Your task to perform on an android device: Open the phone app and click the voicemail tab. Image 0: 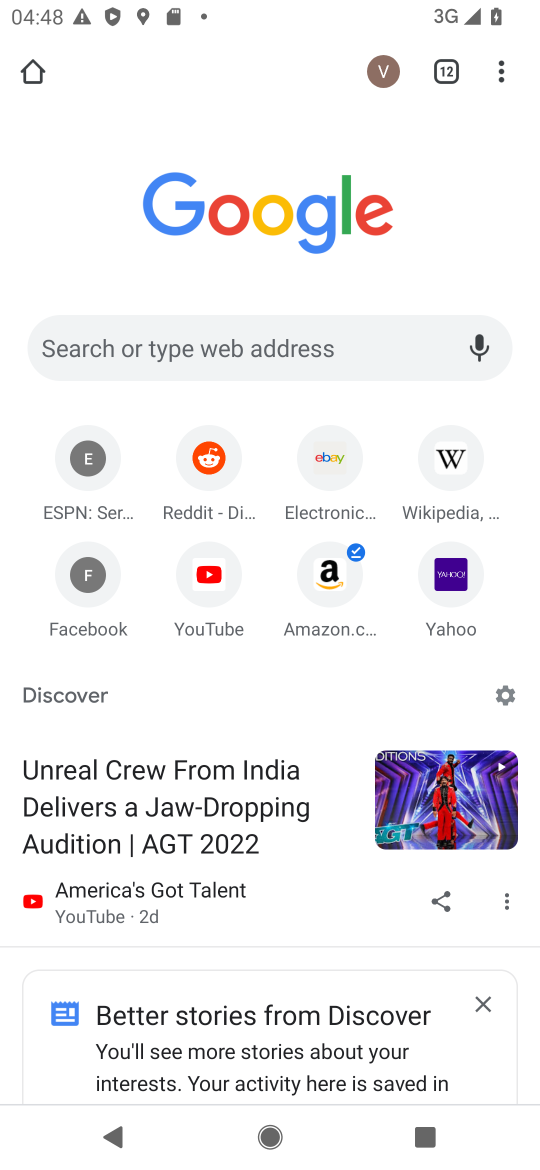
Step 0: click (500, 66)
Your task to perform on an android device: Open the phone app and click the voicemail tab. Image 1: 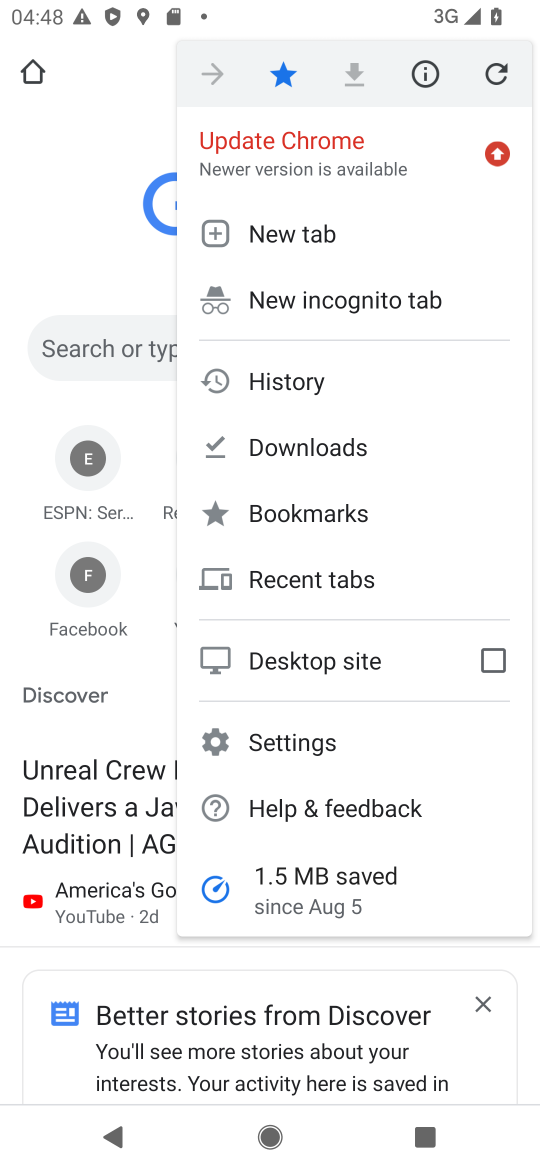
Step 1: press home button
Your task to perform on an android device: Open the phone app and click the voicemail tab. Image 2: 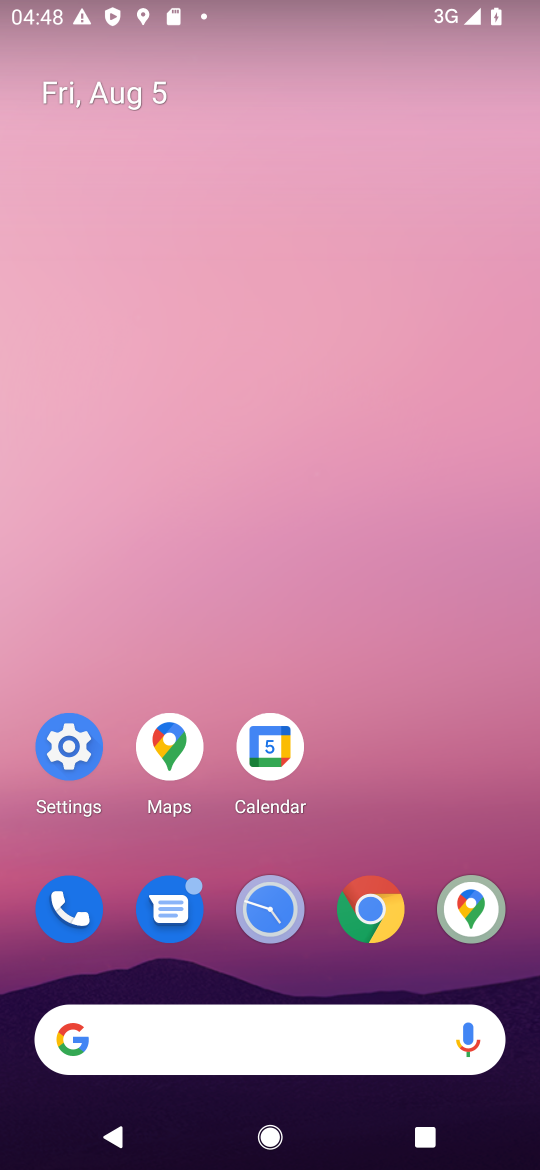
Step 2: drag from (427, 809) to (296, 11)
Your task to perform on an android device: Open the phone app and click the voicemail tab. Image 3: 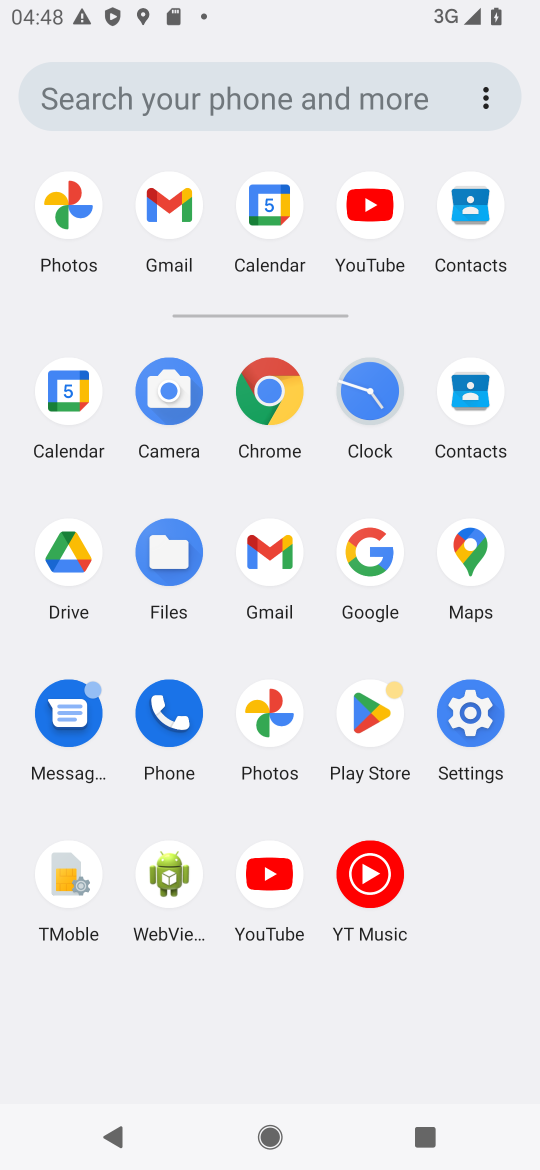
Step 3: click (170, 719)
Your task to perform on an android device: Open the phone app and click the voicemail tab. Image 4: 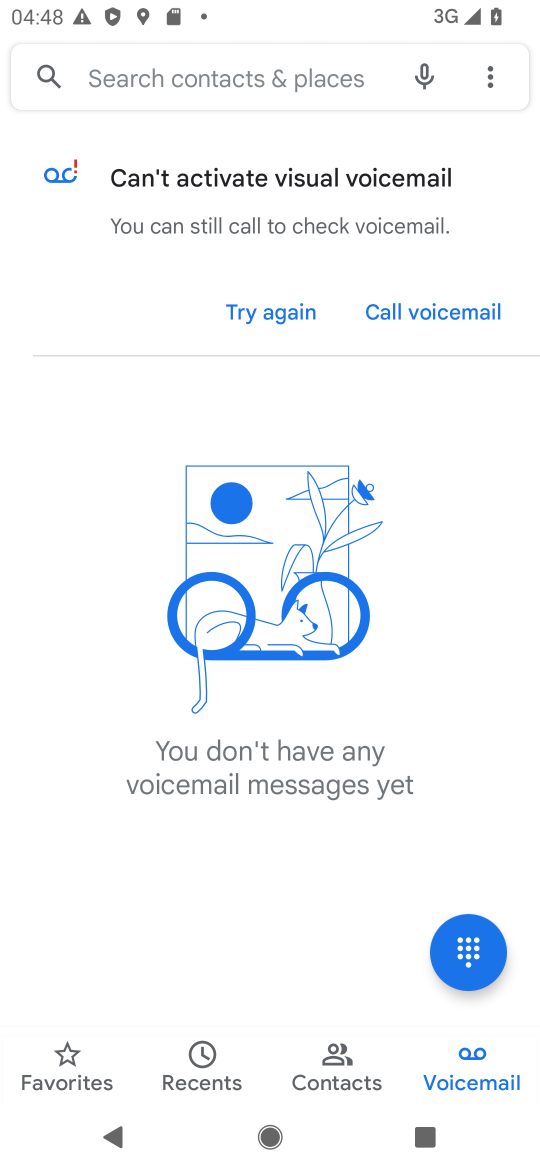
Step 4: click (453, 1073)
Your task to perform on an android device: Open the phone app and click the voicemail tab. Image 5: 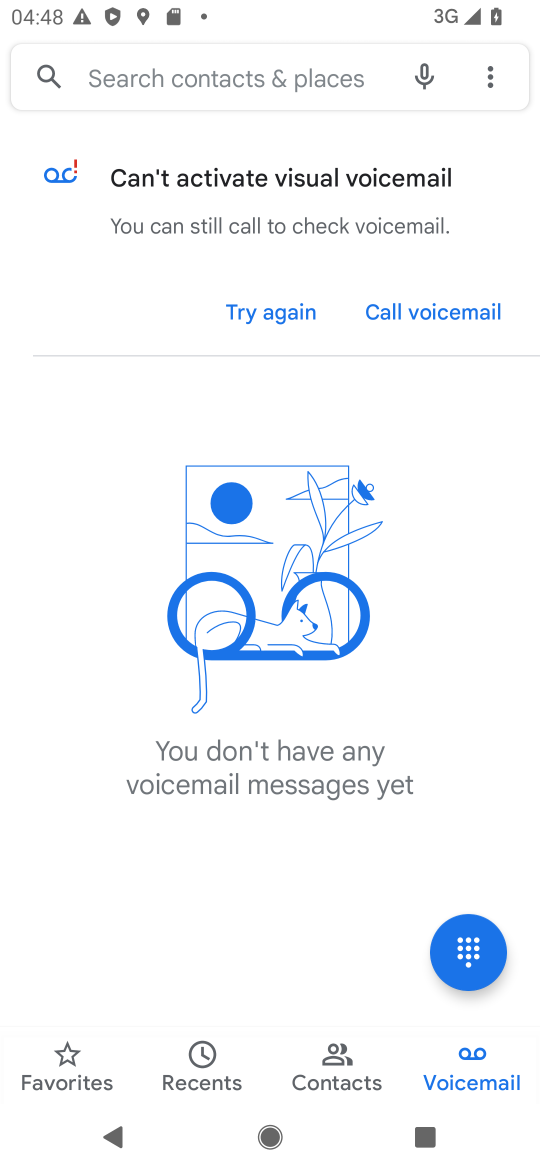
Step 5: task complete